Your task to perform on an android device: Do I have any events this weekend? Image 0: 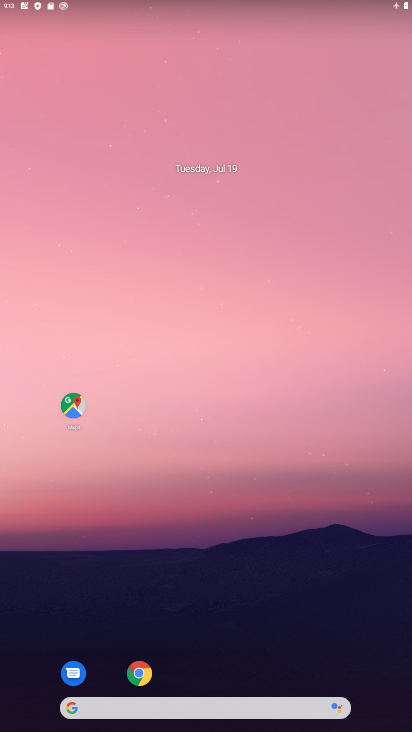
Step 0: drag from (219, 611) to (219, 67)
Your task to perform on an android device: Do I have any events this weekend? Image 1: 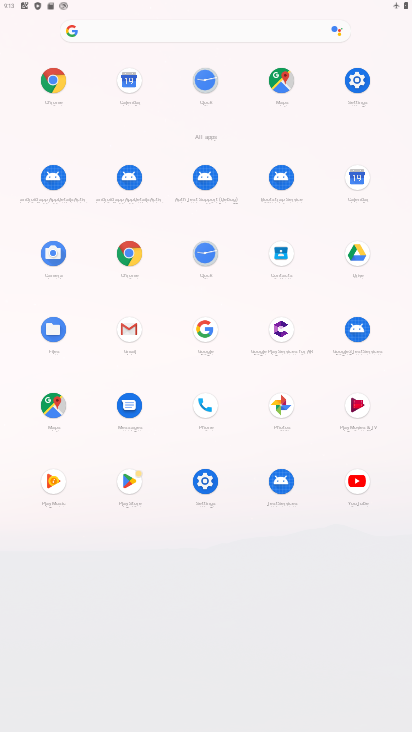
Step 1: click (352, 186)
Your task to perform on an android device: Do I have any events this weekend? Image 2: 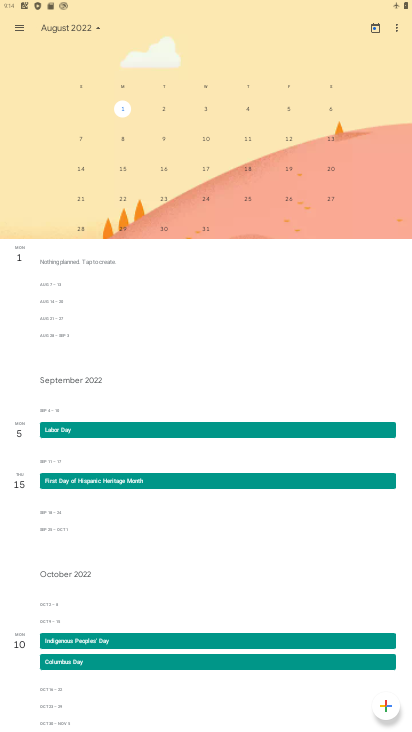
Step 2: click (13, 26)
Your task to perform on an android device: Do I have any events this weekend? Image 3: 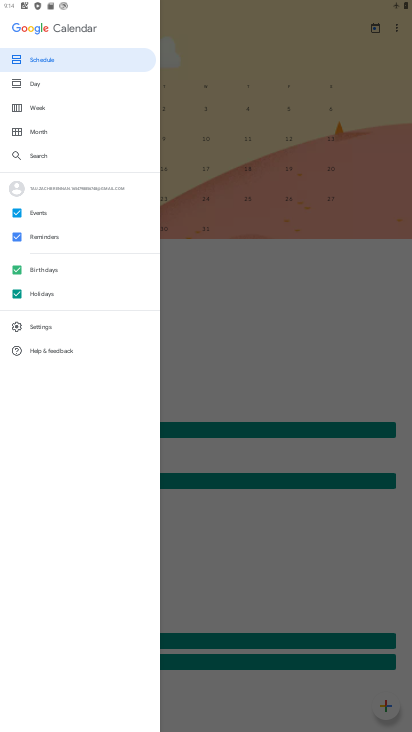
Step 3: click (217, 78)
Your task to perform on an android device: Do I have any events this weekend? Image 4: 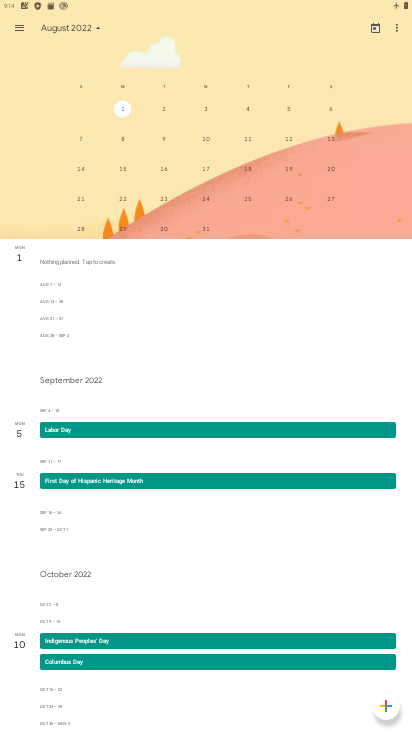
Step 4: drag from (269, 112) to (344, 112)
Your task to perform on an android device: Do I have any events this weekend? Image 5: 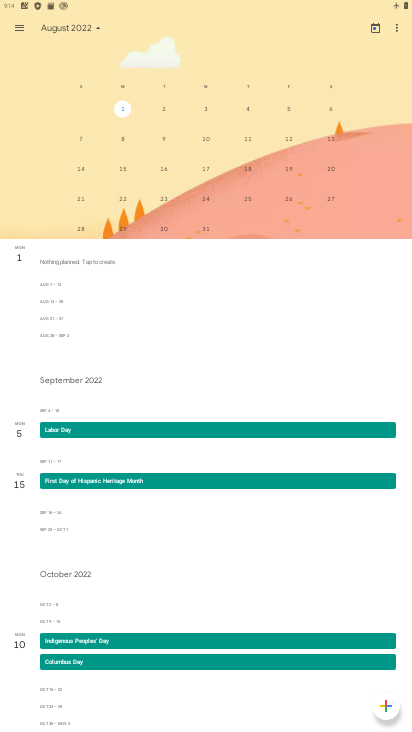
Step 5: drag from (36, 146) to (376, 116)
Your task to perform on an android device: Do I have any events this weekend? Image 6: 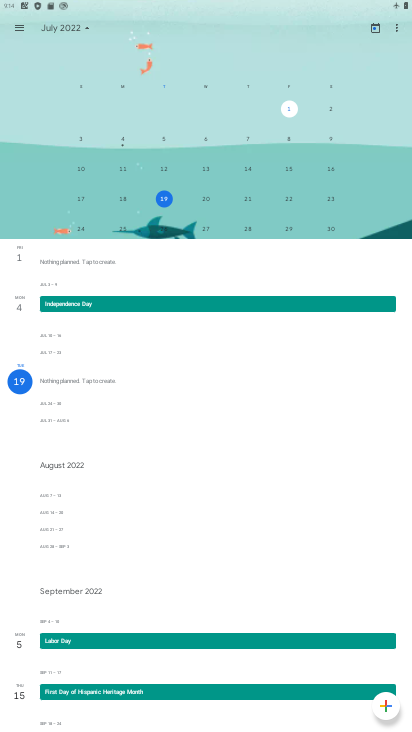
Step 6: click (335, 162)
Your task to perform on an android device: Do I have any events this weekend? Image 7: 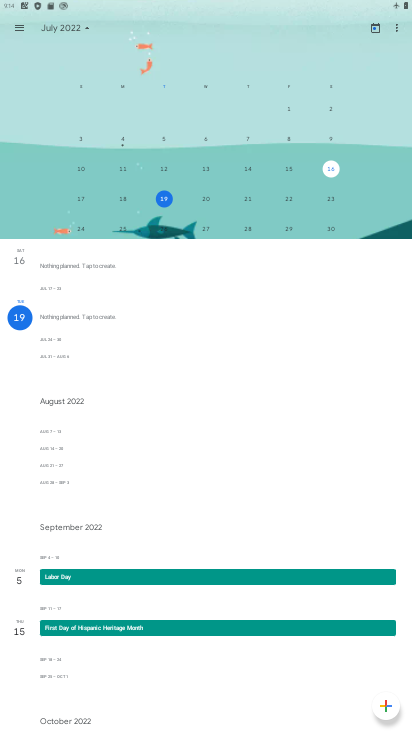
Step 7: click (332, 200)
Your task to perform on an android device: Do I have any events this weekend? Image 8: 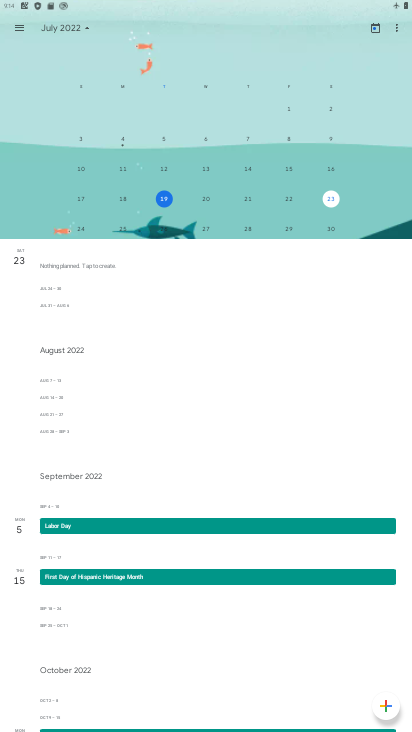
Step 8: task complete